Your task to perform on an android device: check the backup settings in the google photos Image 0: 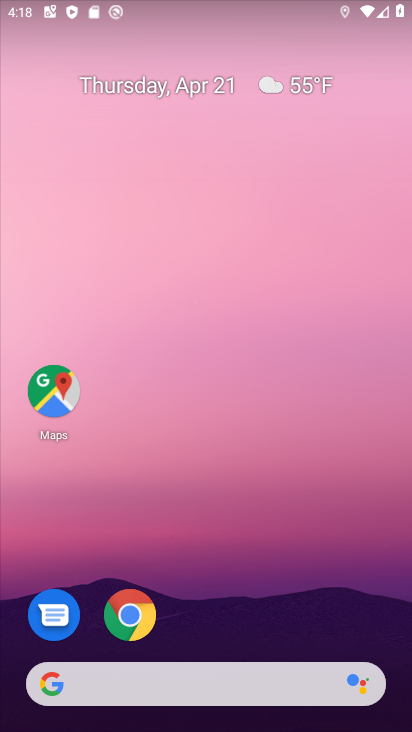
Step 0: drag from (225, 587) to (235, 108)
Your task to perform on an android device: check the backup settings in the google photos Image 1: 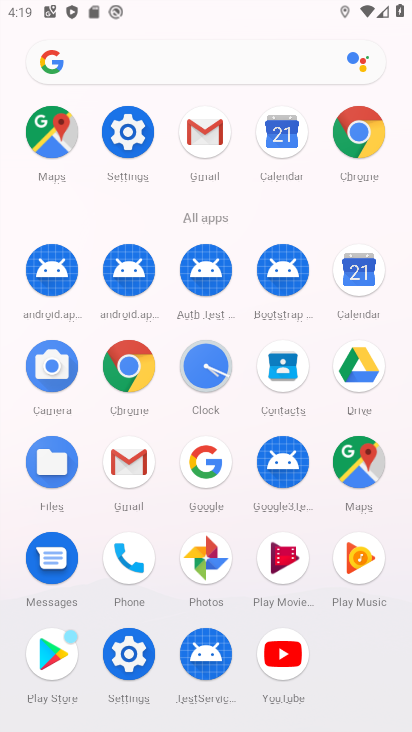
Step 1: click (216, 552)
Your task to perform on an android device: check the backup settings in the google photos Image 2: 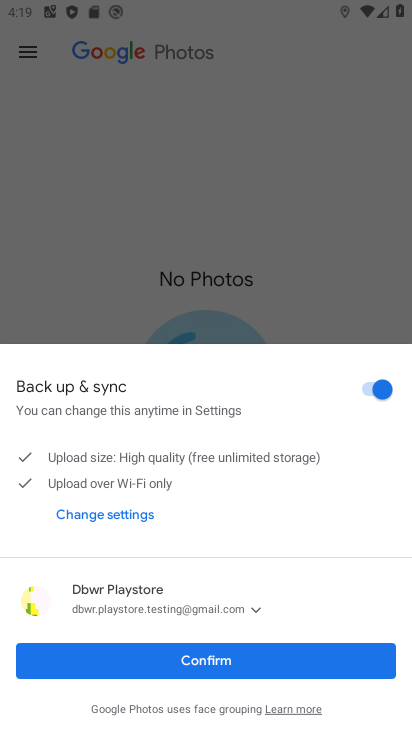
Step 2: click (233, 660)
Your task to perform on an android device: check the backup settings in the google photos Image 3: 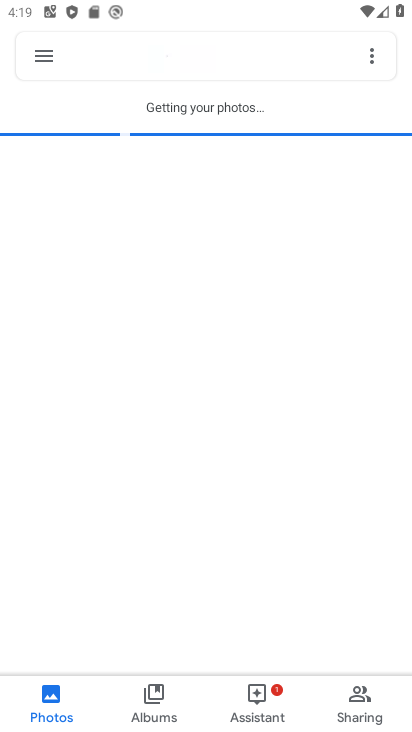
Step 3: click (50, 61)
Your task to perform on an android device: check the backup settings in the google photos Image 4: 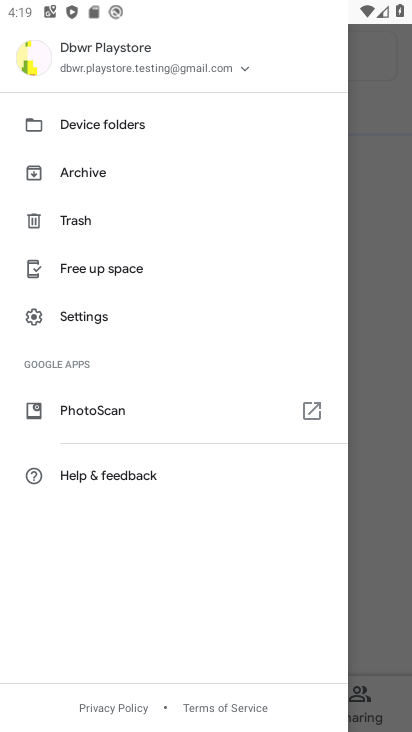
Step 4: click (83, 317)
Your task to perform on an android device: check the backup settings in the google photos Image 5: 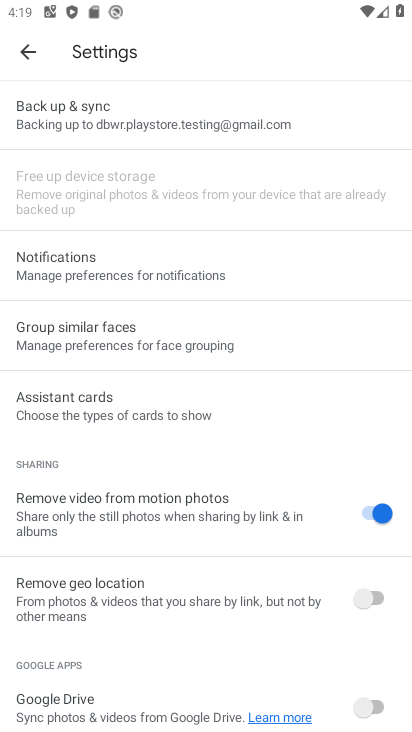
Step 5: click (120, 115)
Your task to perform on an android device: check the backup settings in the google photos Image 6: 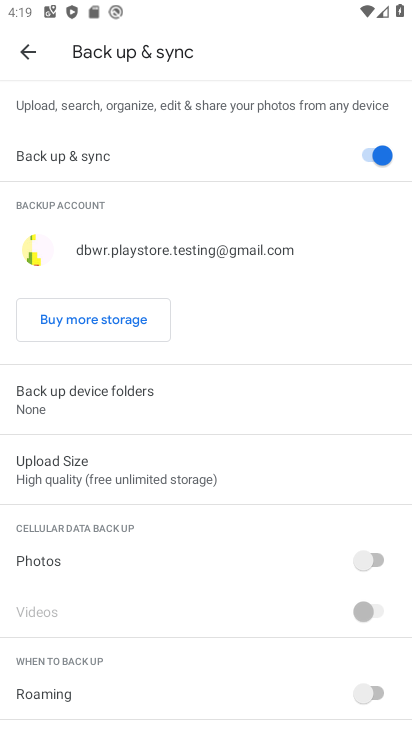
Step 6: task complete